Your task to perform on an android device: Play the last video I watched on Youtube Image 0: 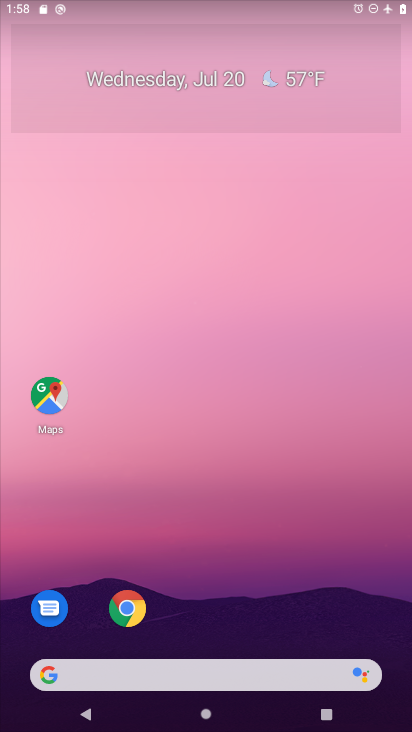
Step 0: drag from (268, 666) to (354, 179)
Your task to perform on an android device: Play the last video I watched on Youtube Image 1: 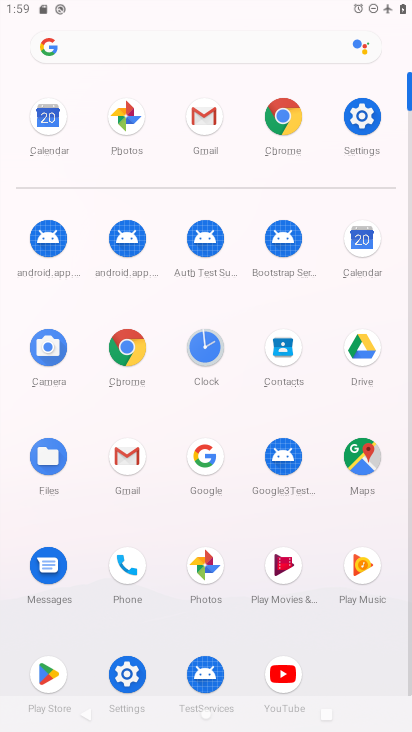
Step 1: click (287, 677)
Your task to perform on an android device: Play the last video I watched on Youtube Image 2: 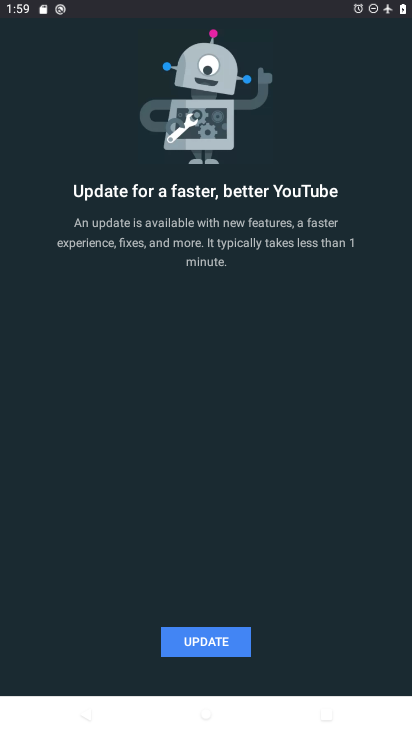
Step 2: click (219, 642)
Your task to perform on an android device: Play the last video I watched on Youtube Image 3: 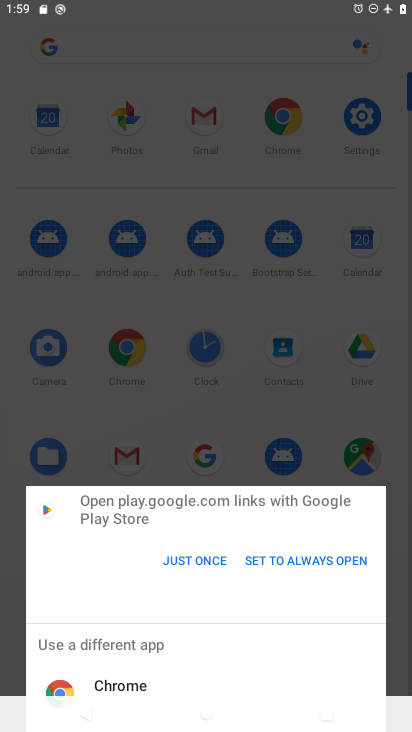
Step 3: click (203, 555)
Your task to perform on an android device: Play the last video I watched on Youtube Image 4: 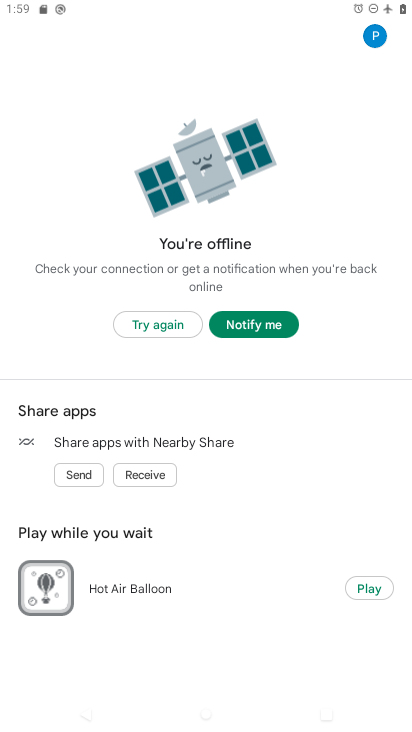
Step 4: task complete